Your task to perform on an android device: Go to Google maps Image 0: 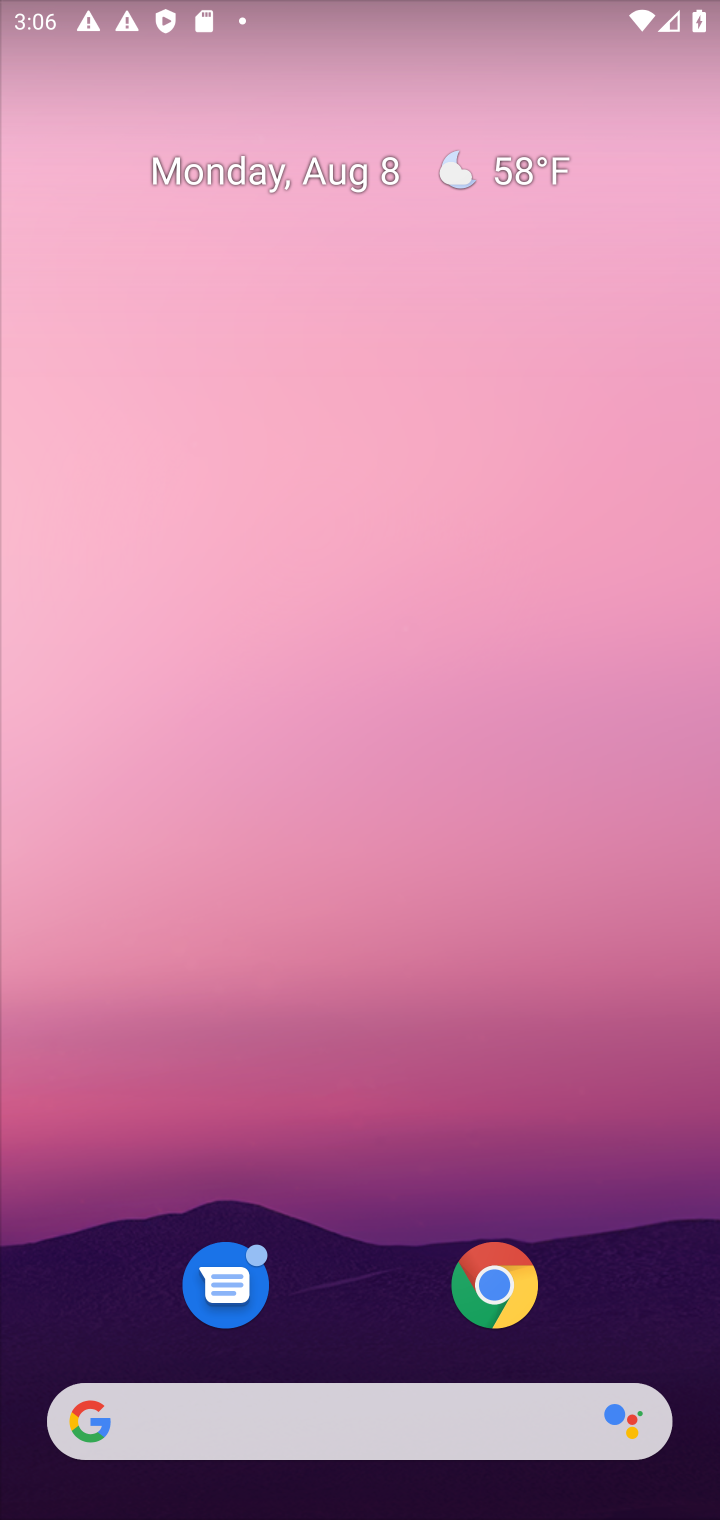
Step 0: drag from (359, 742) to (375, 286)
Your task to perform on an android device: Go to Google maps Image 1: 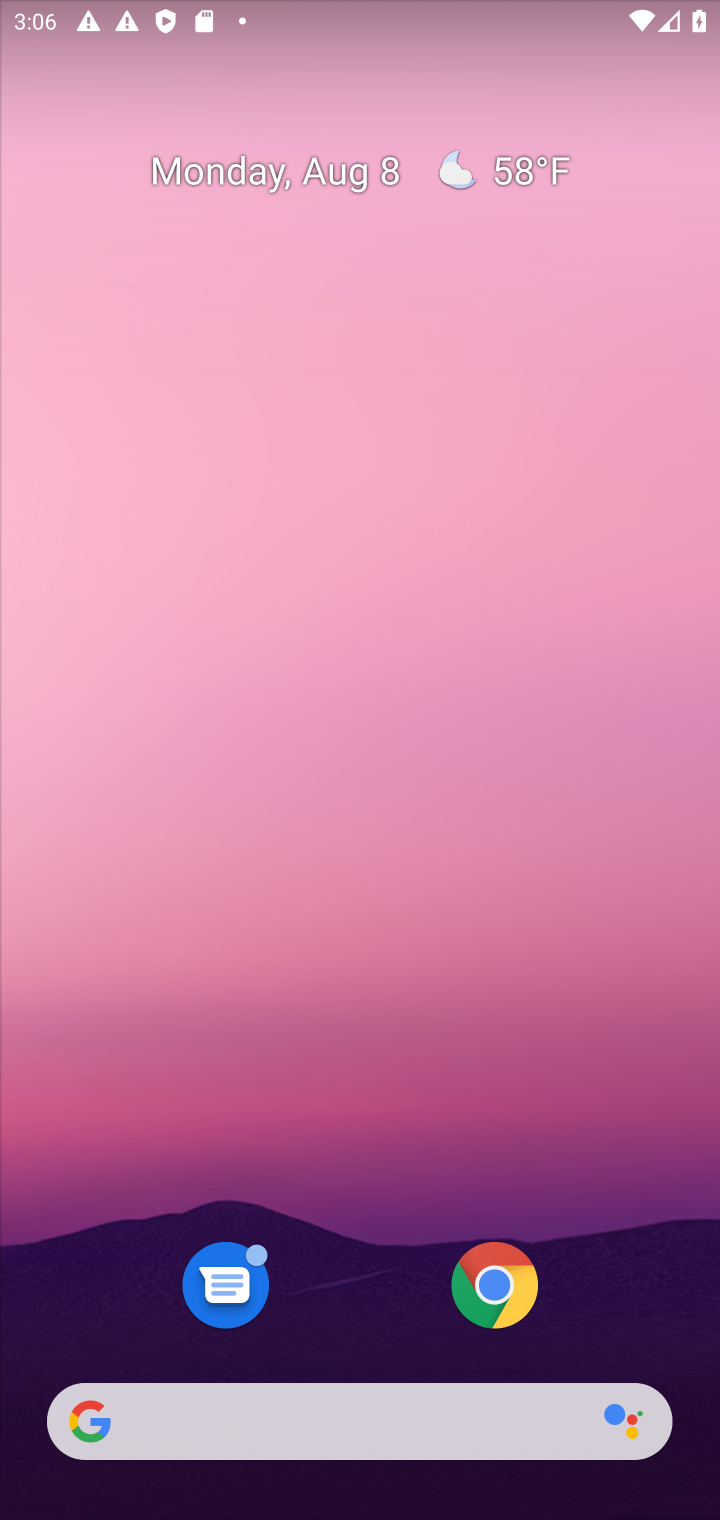
Step 1: drag from (331, 1301) to (358, 91)
Your task to perform on an android device: Go to Google maps Image 2: 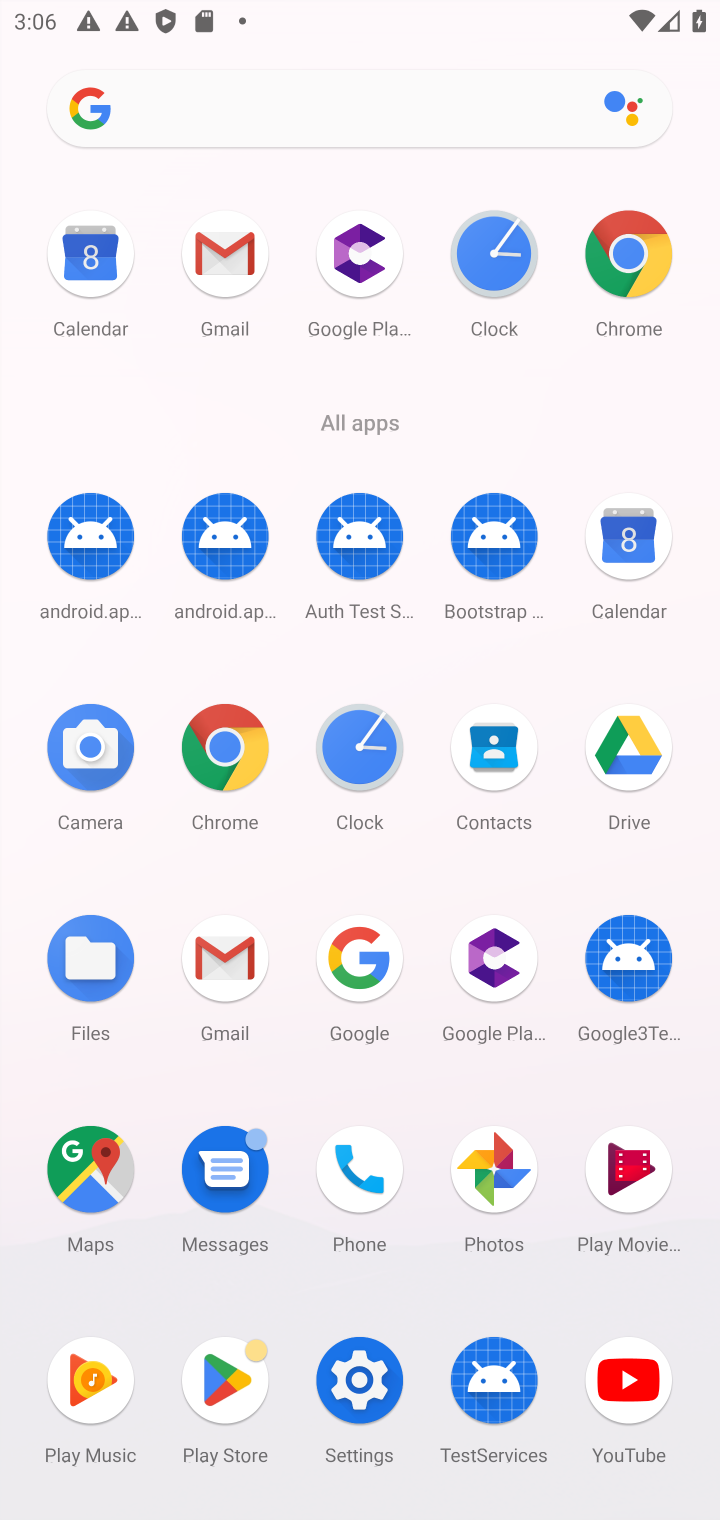
Step 2: click (89, 1162)
Your task to perform on an android device: Go to Google maps Image 3: 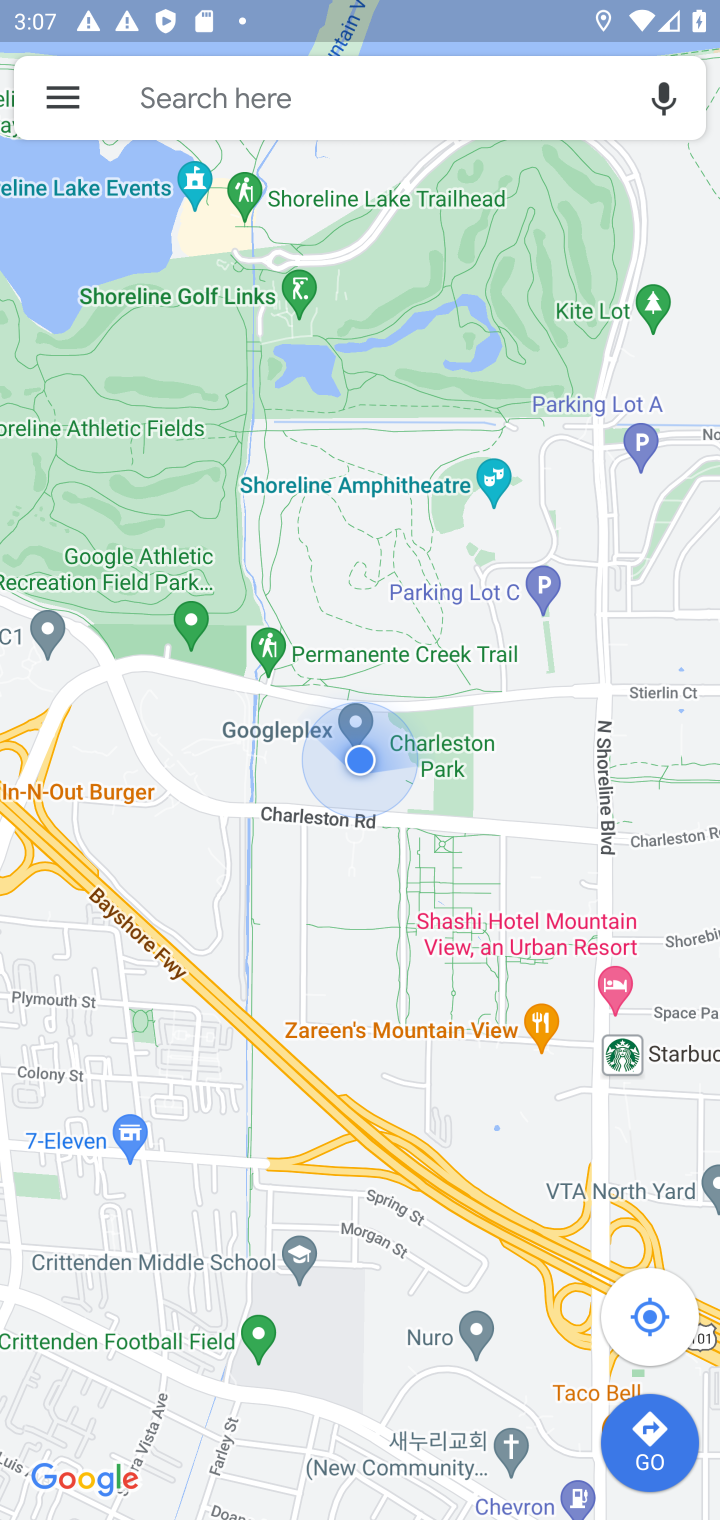
Step 3: click (195, 95)
Your task to perform on an android device: Go to Google maps Image 4: 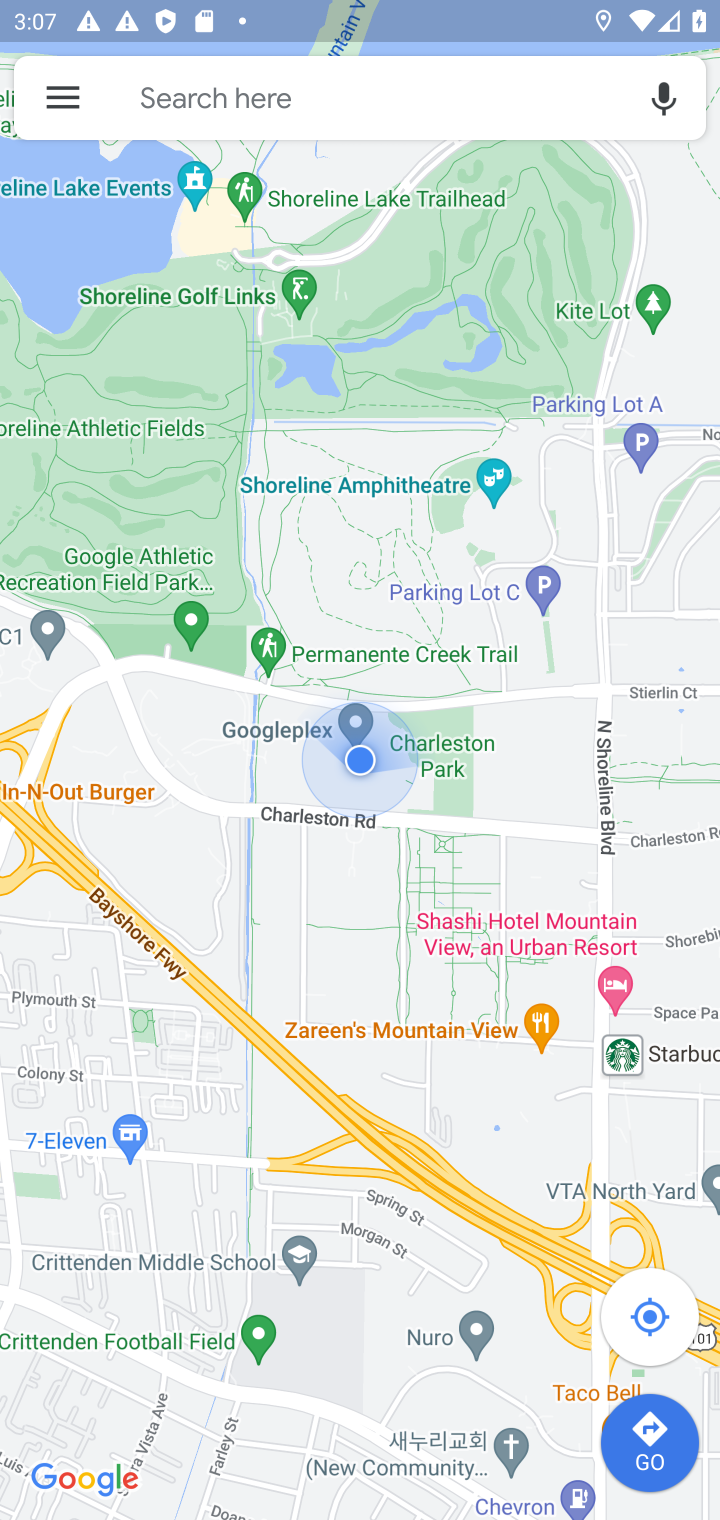
Step 4: task complete